Your task to perform on an android device: open wifi settings Image 0: 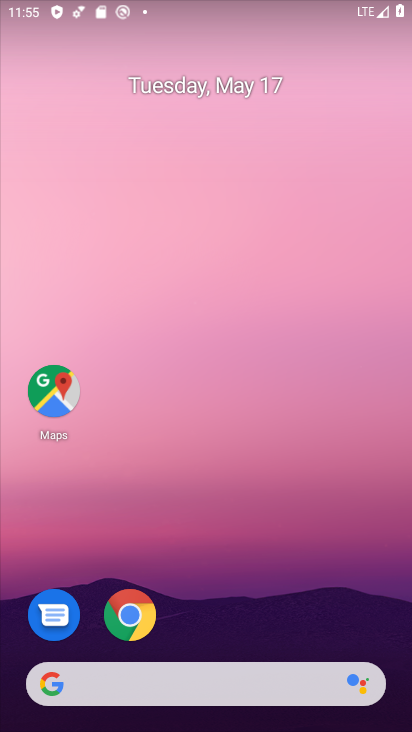
Step 0: drag from (266, 712) to (287, 227)
Your task to perform on an android device: open wifi settings Image 1: 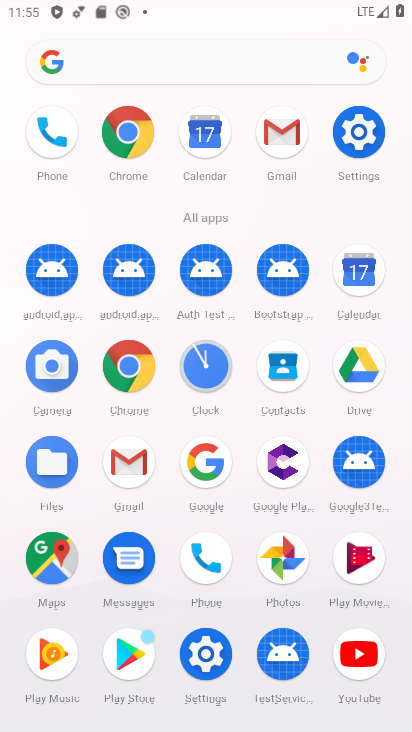
Step 1: click (371, 128)
Your task to perform on an android device: open wifi settings Image 2: 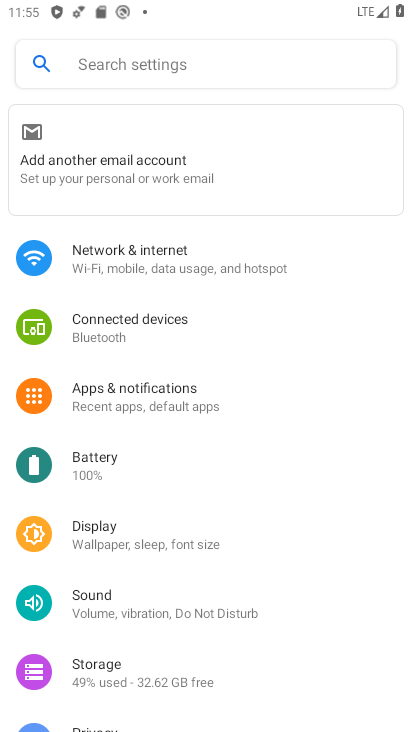
Step 2: click (149, 266)
Your task to perform on an android device: open wifi settings Image 3: 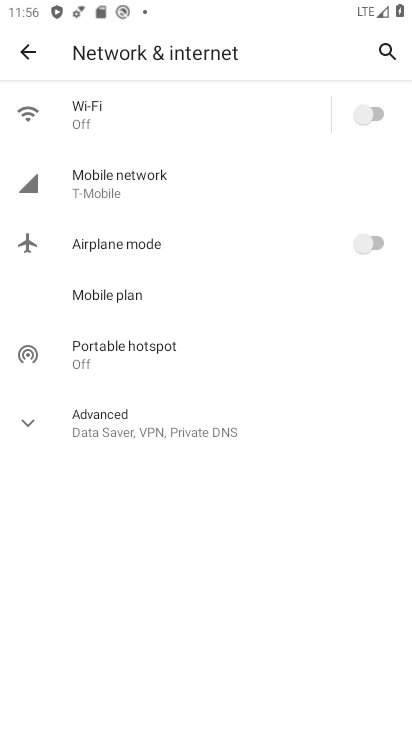
Step 3: click (144, 130)
Your task to perform on an android device: open wifi settings Image 4: 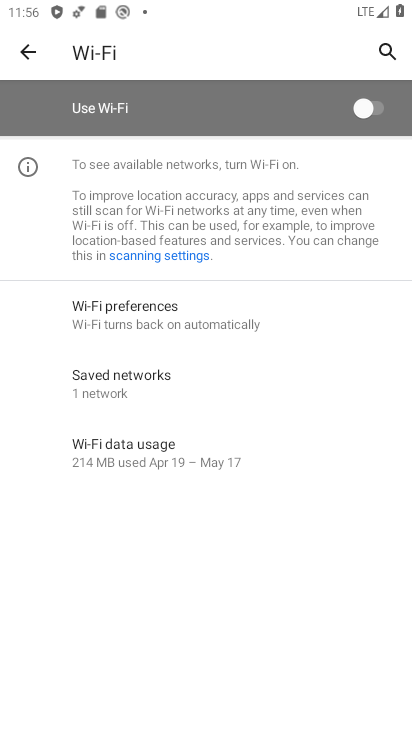
Step 4: task complete